Your task to perform on an android device: find snoozed emails in the gmail app Image 0: 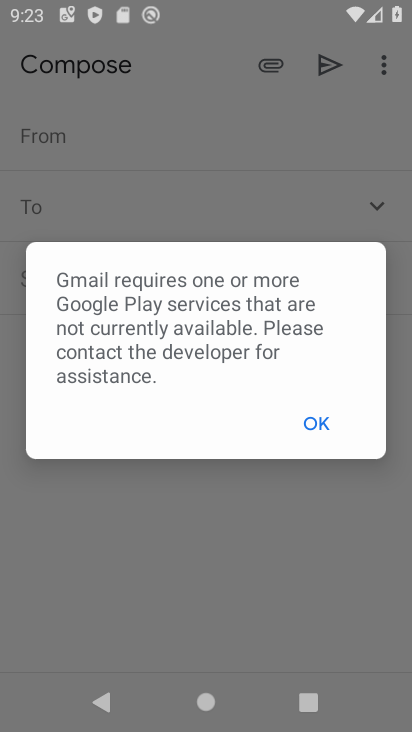
Step 0: press home button
Your task to perform on an android device: find snoozed emails in the gmail app Image 1: 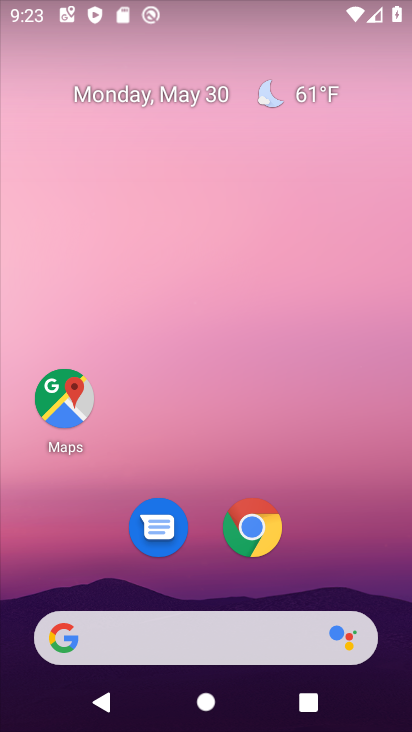
Step 1: drag from (326, 582) to (159, 3)
Your task to perform on an android device: find snoozed emails in the gmail app Image 2: 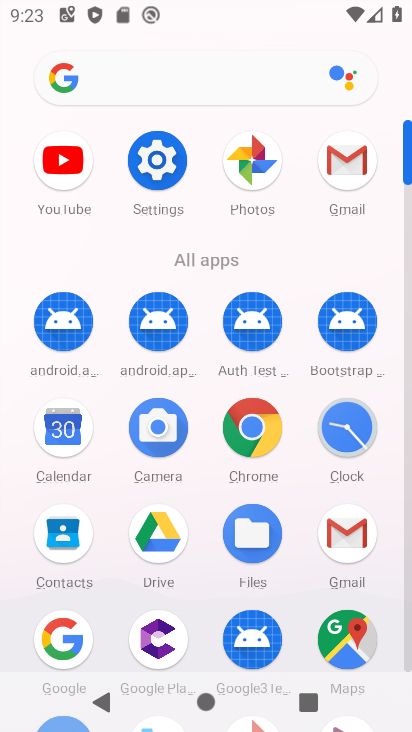
Step 2: click (344, 530)
Your task to perform on an android device: find snoozed emails in the gmail app Image 3: 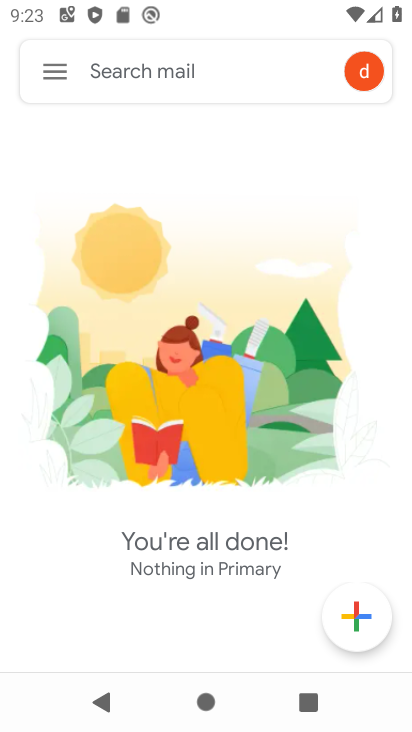
Step 3: click (42, 70)
Your task to perform on an android device: find snoozed emails in the gmail app Image 4: 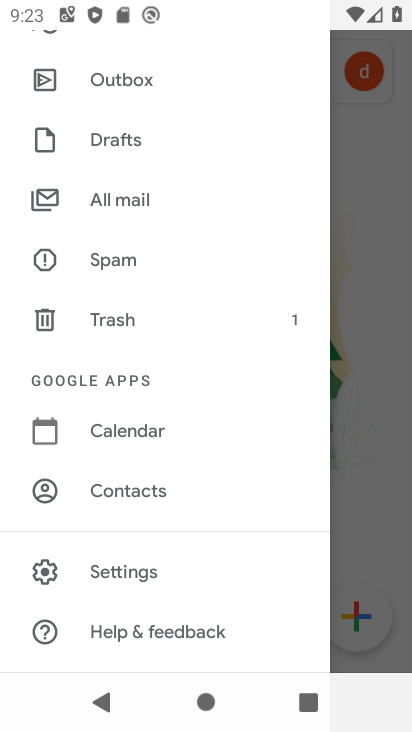
Step 4: drag from (148, 248) to (215, 488)
Your task to perform on an android device: find snoozed emails in the gmail app Image 5: 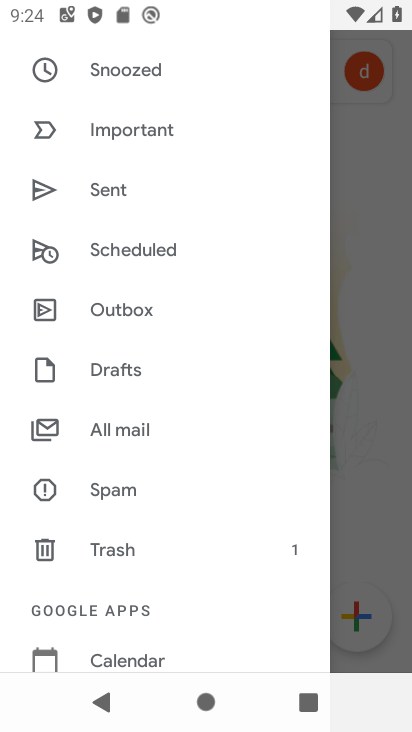
Step 5: click (126, 58)
Your task to perform on an android device: find snoozed emails in the gmail app Image 6: 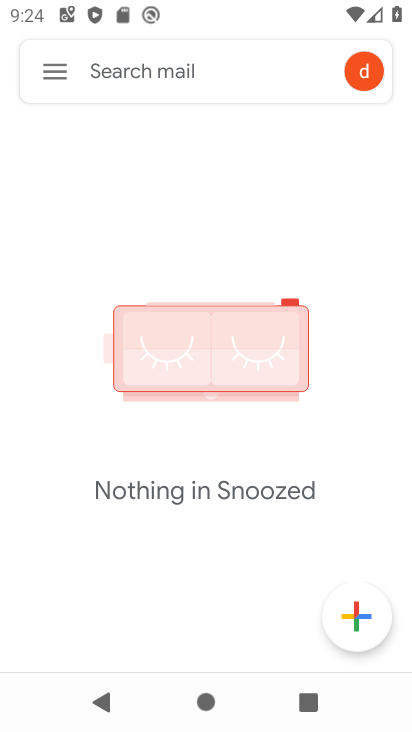
Step 6: task complete